Your task to perform on an android device: delete location history Image 0: 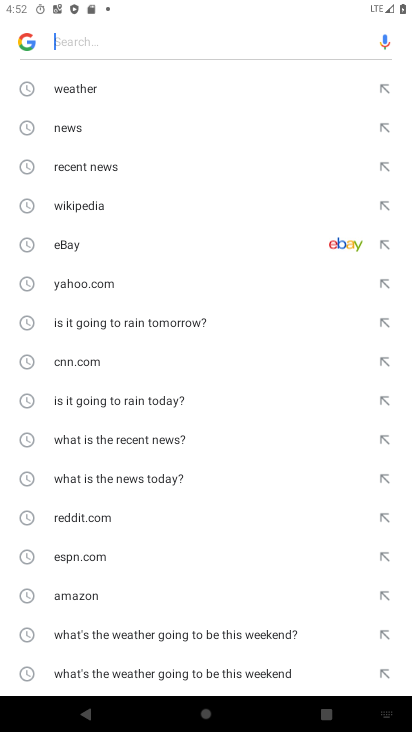
Step 0: press home button
Your task to perform on an android device: delete location history Image 1: 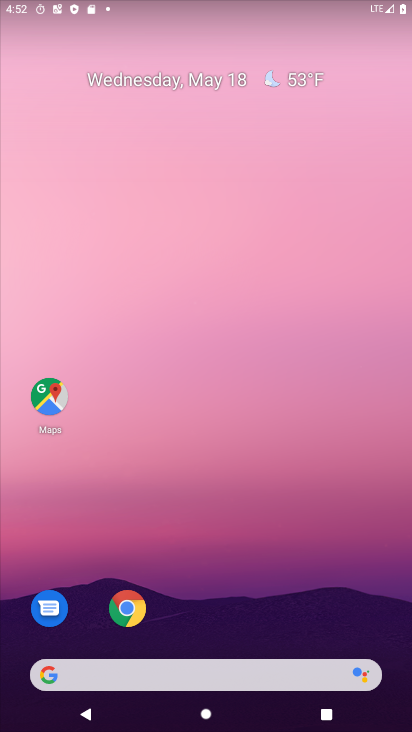
Step 1: drag from (292, 678) to (257, 42)
Your task to perform on an android device: delete location history Image 2: 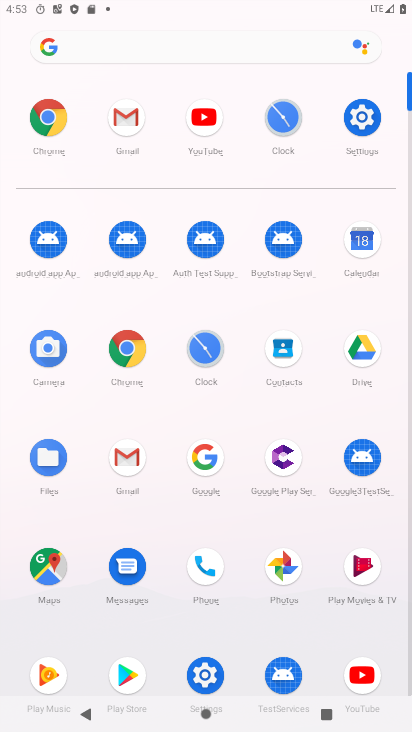
Step 2: click (55, 571)
Your task to perform on an android device: delete location history Image 3: 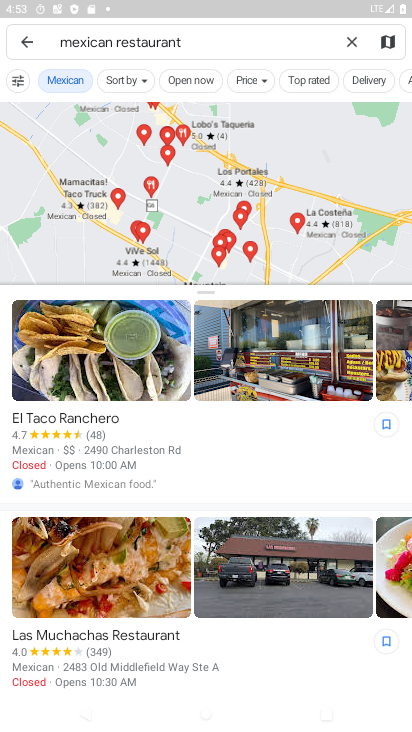
Step 3: press back button
Your task to perform on an android device: delete location history Image 4: 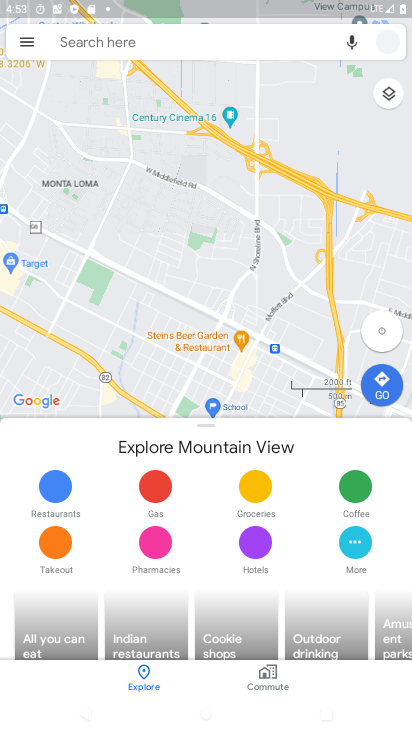
Step 4: click (27, 38)
Your task to perform on an android device: delete location history Image 5: 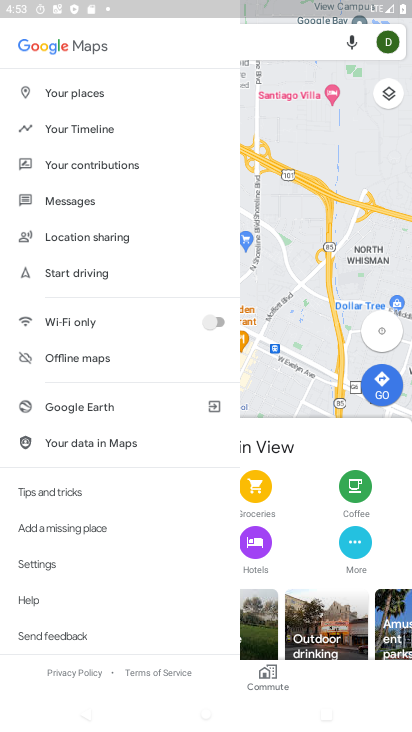
Step 5: click (27, 38)
Your task to perform on an android device: delete location history Image 6: 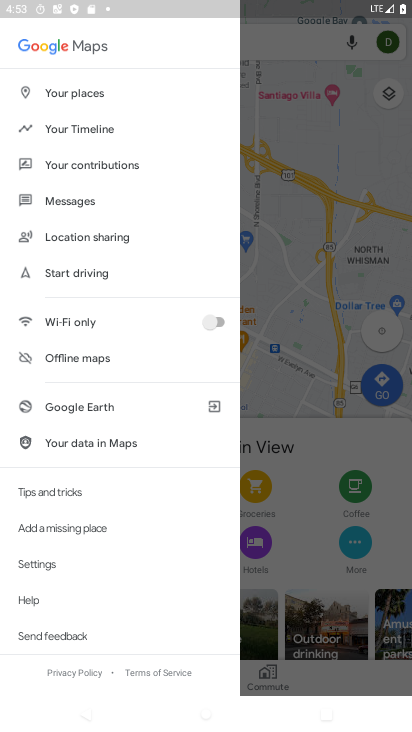
Step 6: click (88, 123)
Your task to perform on an android device: delete location history Image 7: 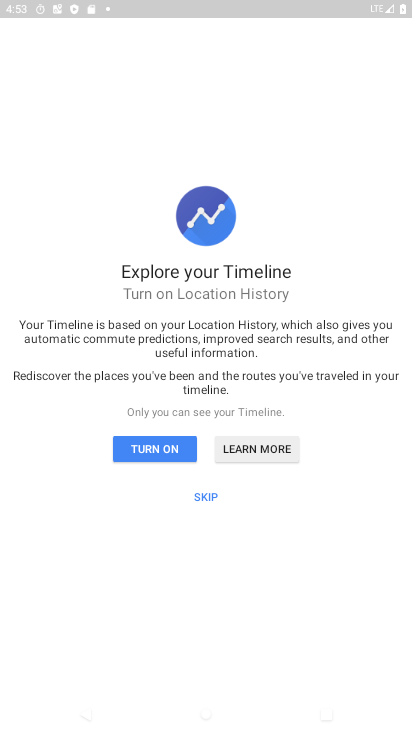
Step 7: click (211, 492)
Your task to perform on an android device: delete location history Image 8: 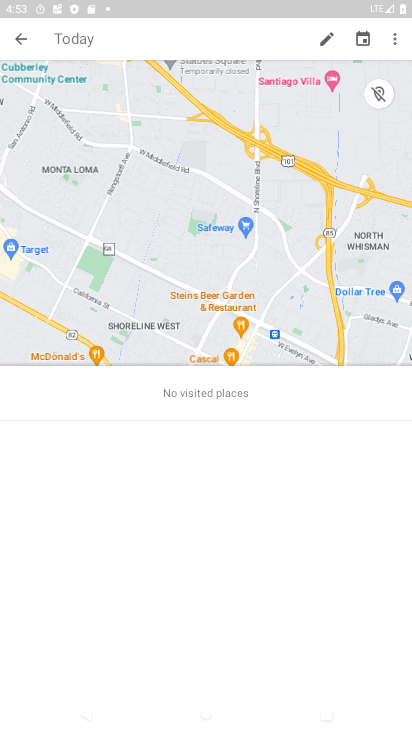
Step 8: click (392, 36)
Your task to perform on an android device: delete location history Image 9: 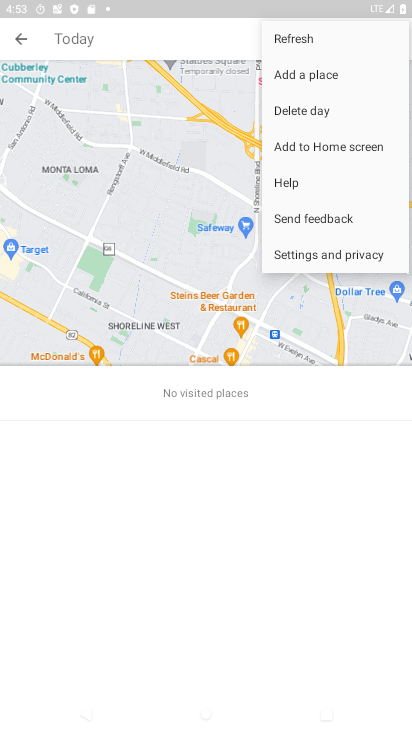
Step 9: click (295, 256)
Your task to perform on an android device: delete location history Image 10: 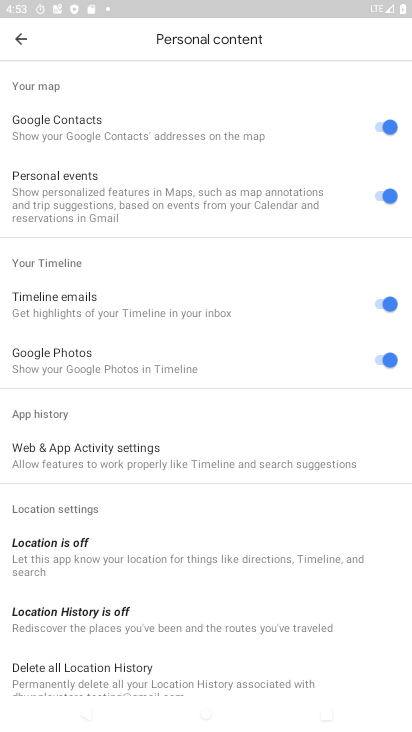
Step 10: click (83, 670)
Your task to perform on an android device: delete location history Image 11: 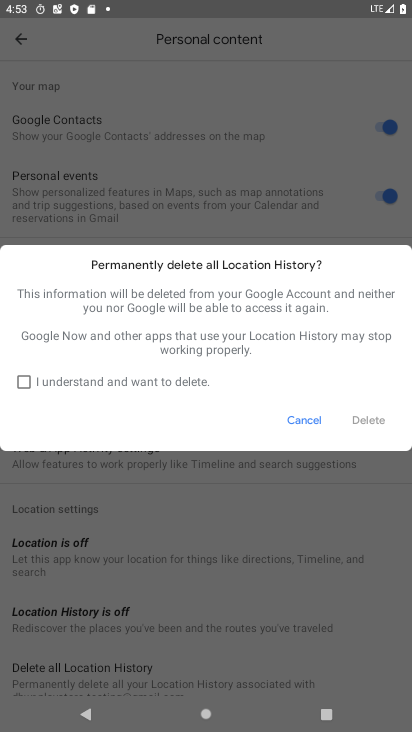
Step 11: click (23, 383)
Your task to perform on an android device: delete location history Image 12: 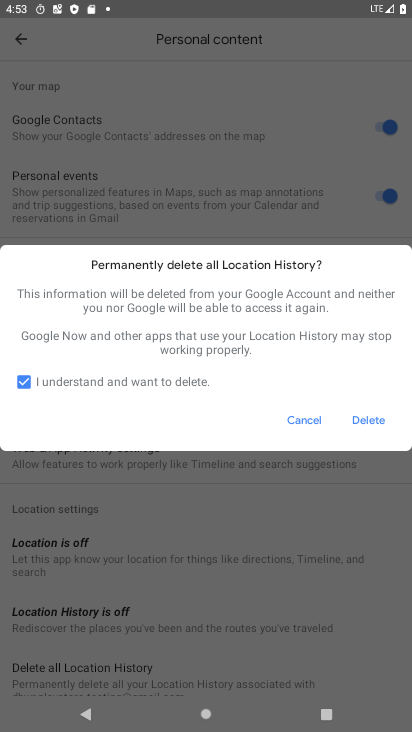
Step 12: click (370, 416)
Your task to perform on an android device: delete location history Image 13: 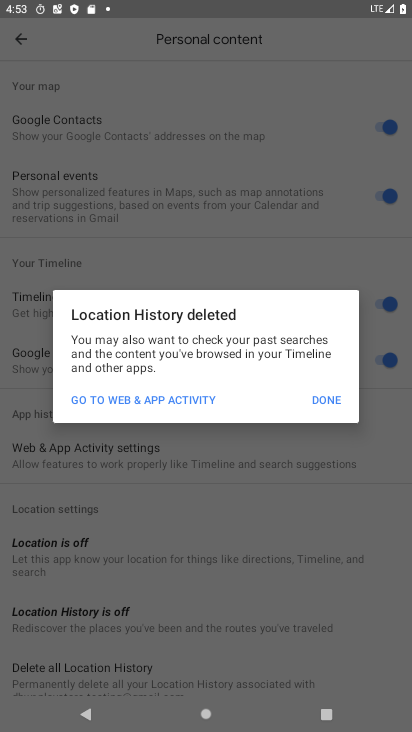
Step 13: click (316, 395)
Your task to perform on an android device: delete location history Image 14: 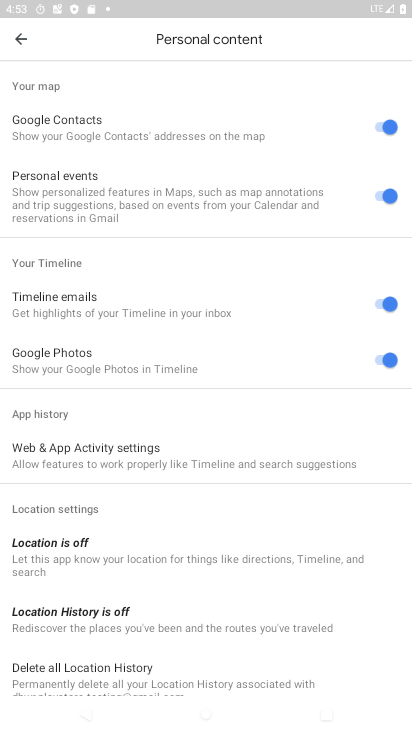
Step 14: task complete